Your task to perform on an android device: Open maps Image 0: 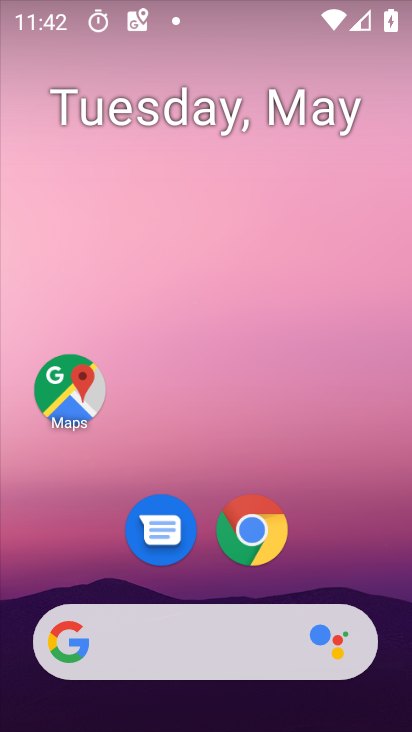
Step 0: drag from (275, 638) to (279, 60)
Your task to perform on an android device: Open maps Image 1: 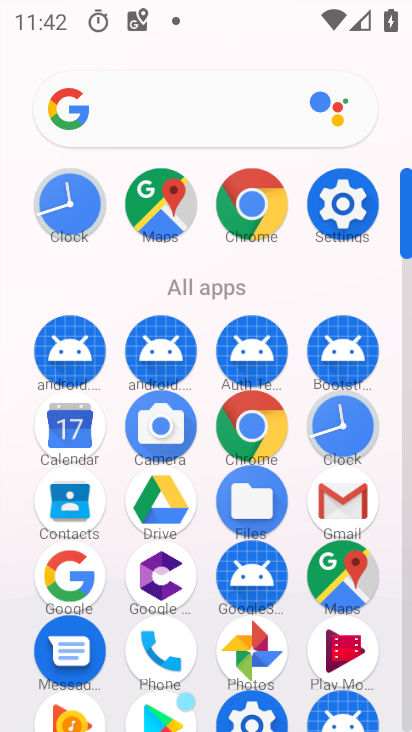
Step 1: click (336, 576)
Your task to perform on an android device: Open maps Image 2: 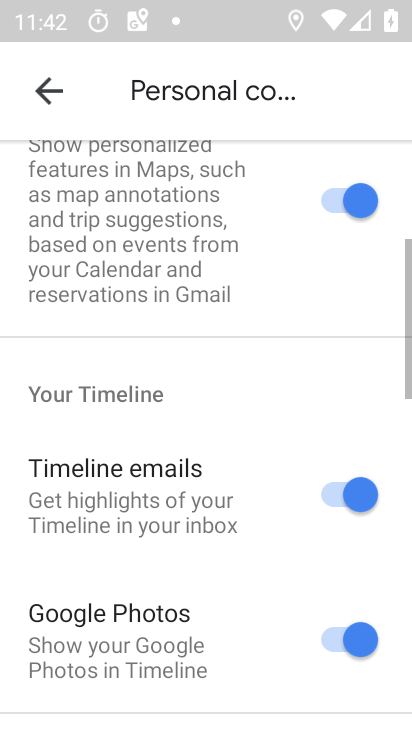
Step 2: task complete